Your task to perform on an android device: turn off location Image 0: 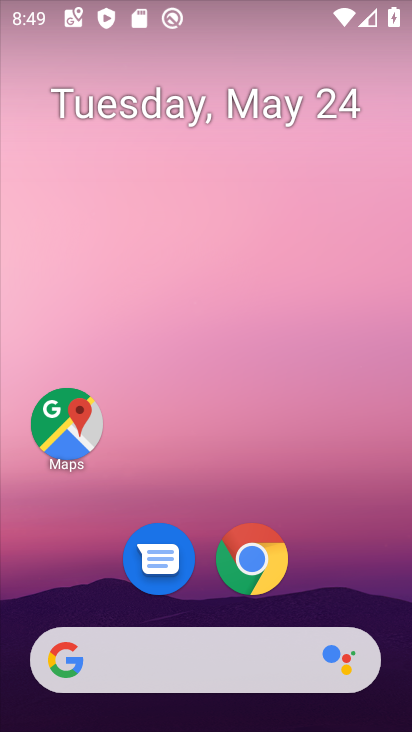
Step 0: drag from (176, 703) to (201, 170)
Your task to perform on an android device: turn off location Image 1: 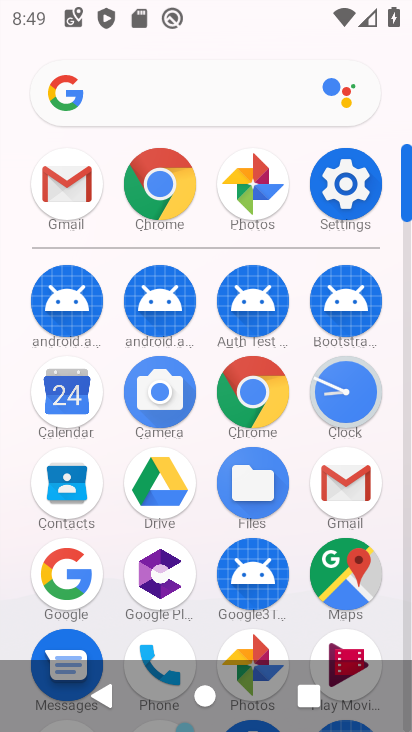
Step 1: click (362, 193)
Your task to perform on an android device: turn off location Image 2: 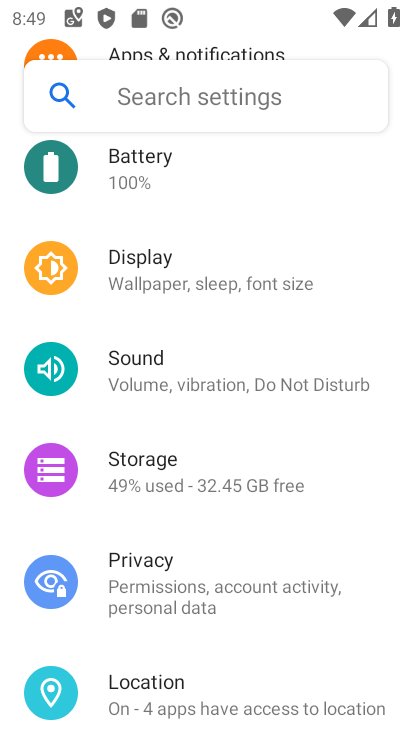
Step 2: drag from (217, 261) to (183, 147)
Your task to perform on an android device: turn off location Image 3: 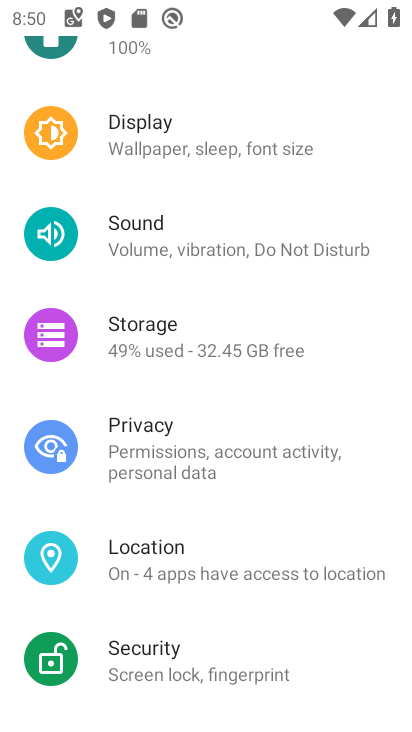
Step 3: click (142, 580)
Your task to perform on an android device: turn off location Image 4: 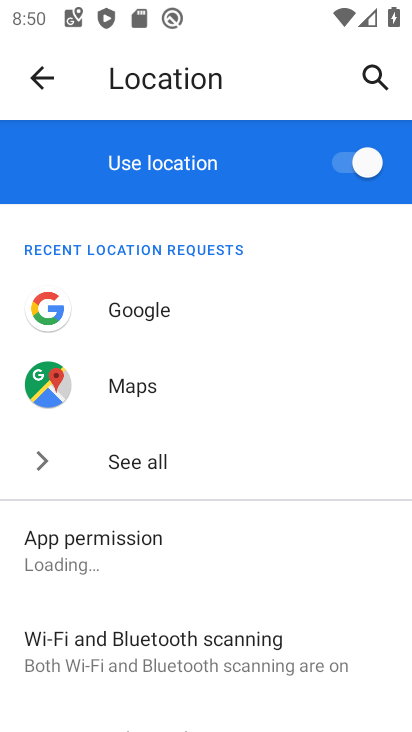
Step 4: click (356, 152)
Your task to perform on an android device: turn off location Image 5: 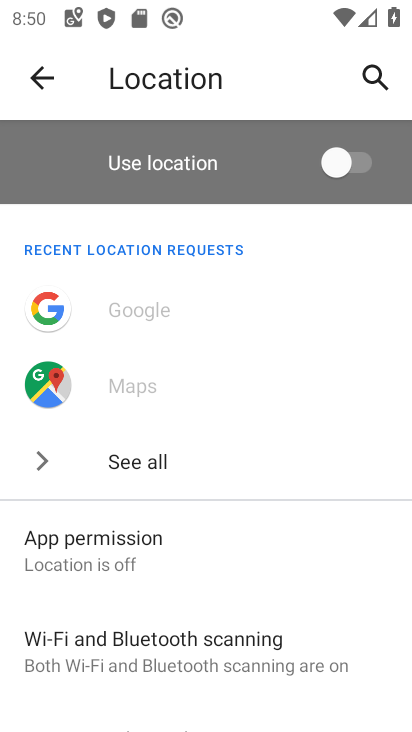
Step 5: task complete